Your task to perform on an android device: How old is the earth? Image 0: 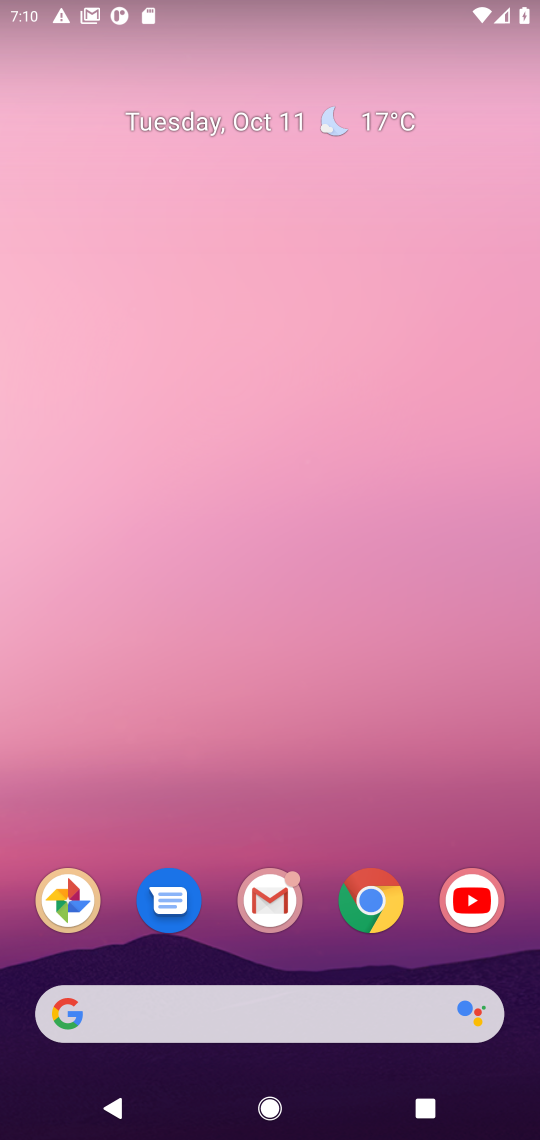
Step 0: click (371, 905)
Your task to perform on an android device: How old is the earth? Image 1: 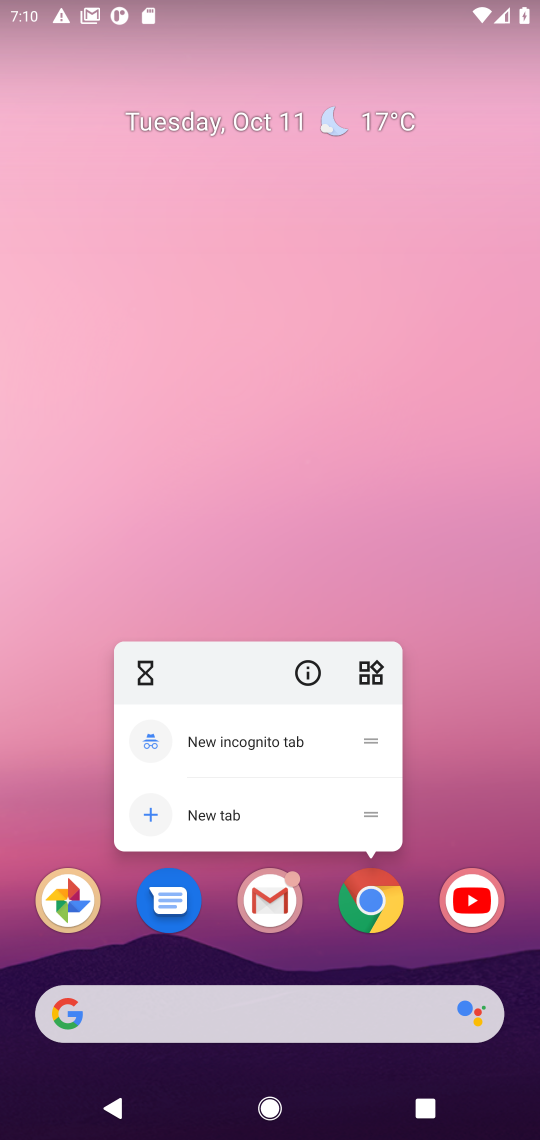
Step 1: click (365, 913)
Your task to perform on an android device: How old is the earth? Image 2: 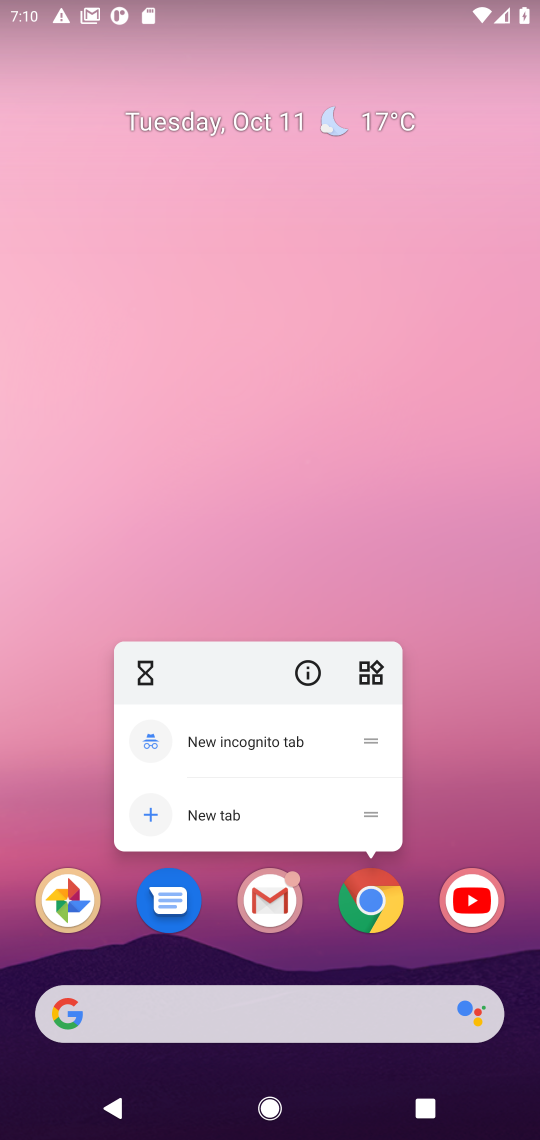
Step 2: click (364, 908)
Your task to perform on an android device: How old is the earth? Image 3: 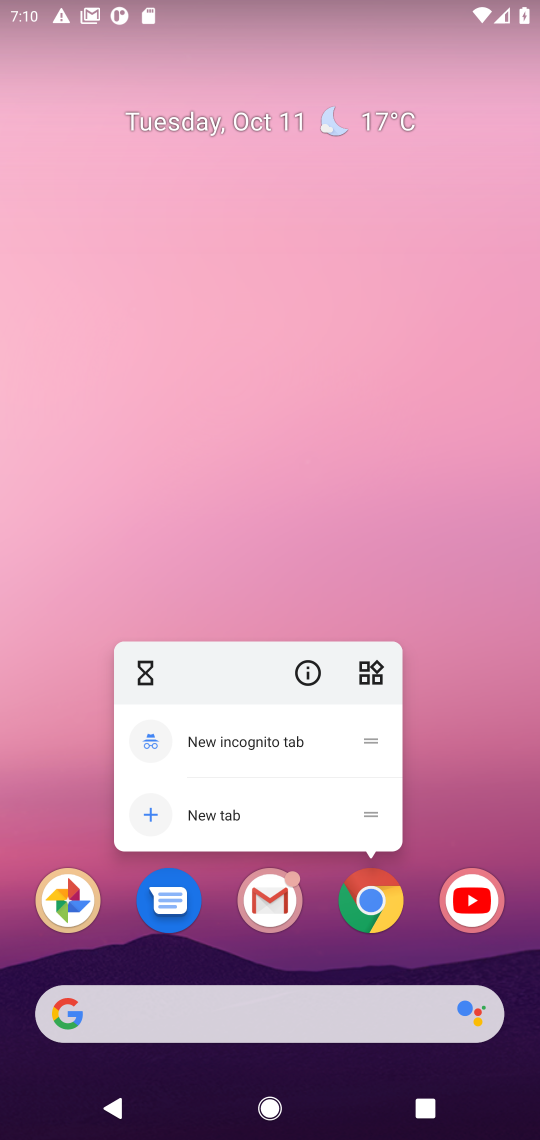
Step 3: click (365, 910)
Your task to perform on an android device: How old is the earth? Image 4: 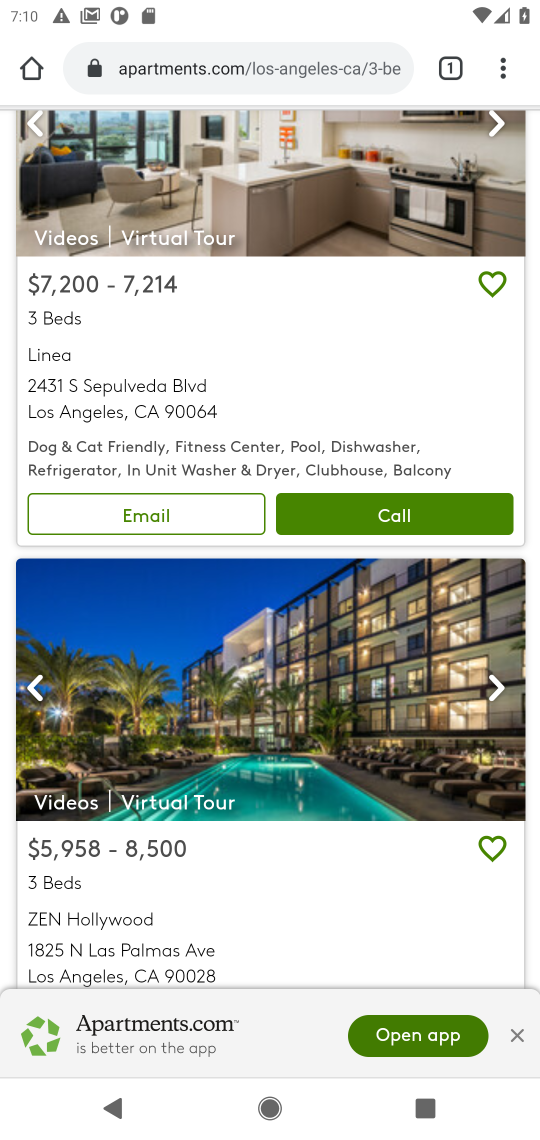
Step 4: click (295, 62)
Your task to perform on an android device: How old is the earth? Image 5: 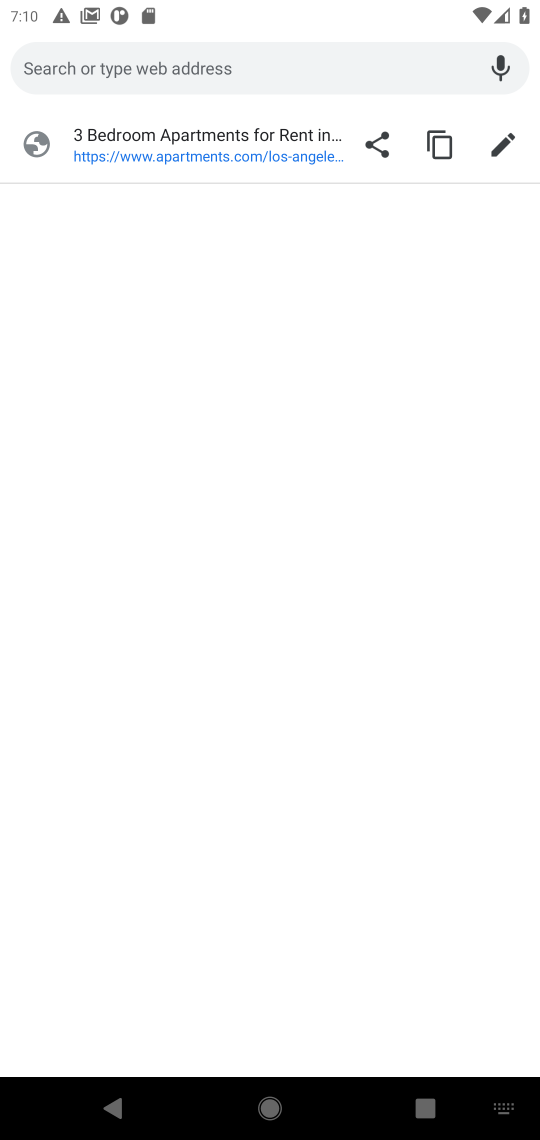
Step 5: type "How old is the earth"
Your task to perform on an android device: How old is the earth? Image 6: 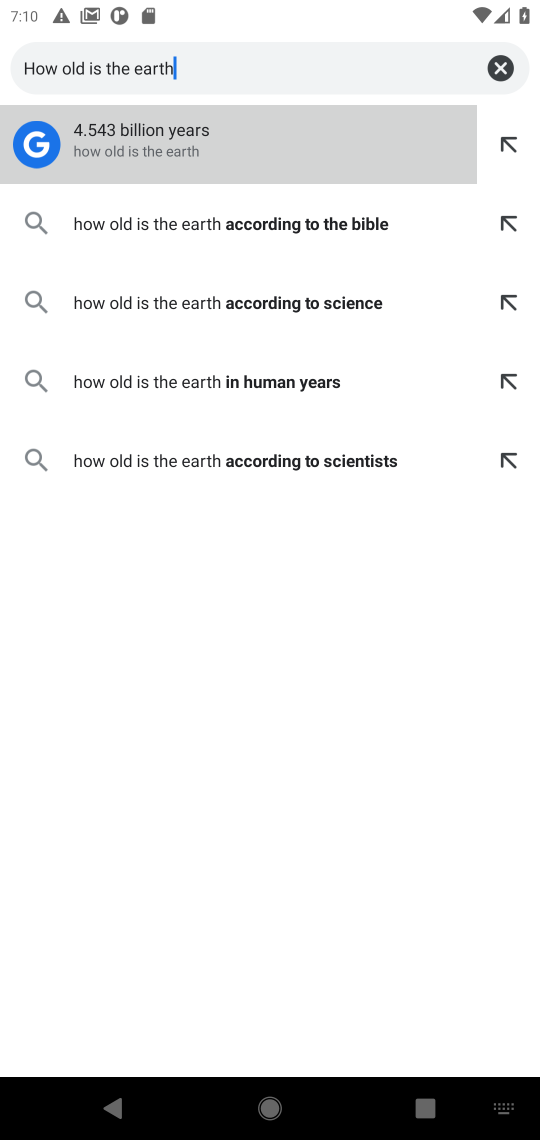
Step 6: press enter
Your task to perform on an android device: How old is the earth? Image 7: 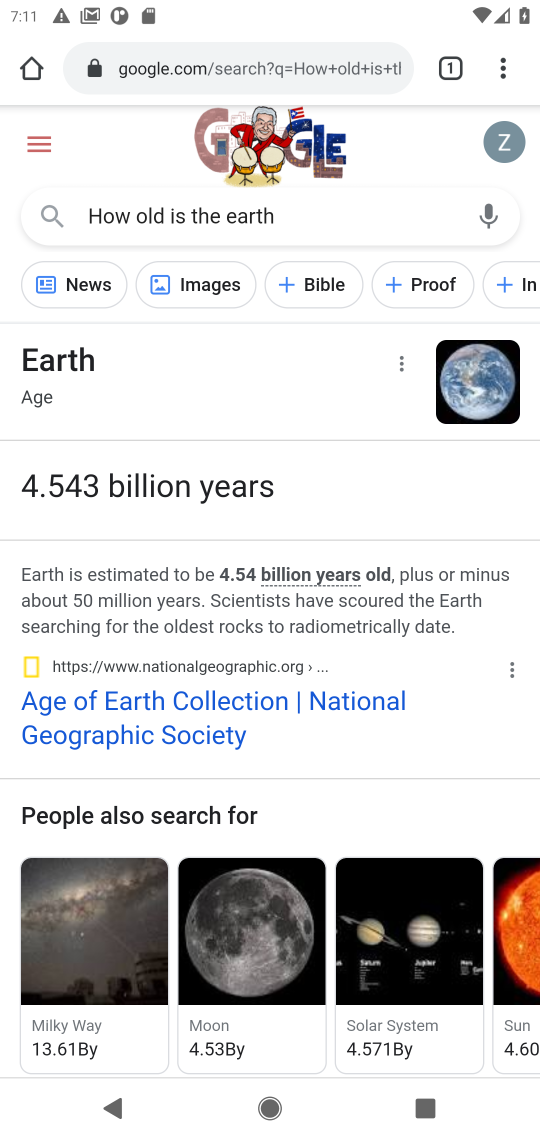
Step 7: click (223, 699)
Your task to perform on an android device: How old is the earth? Image 8: 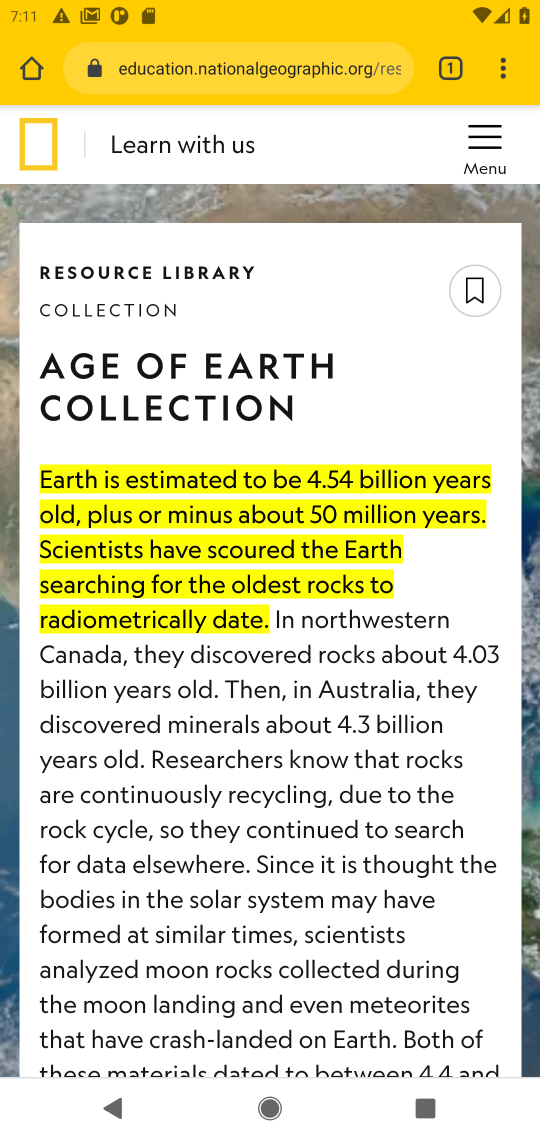
Step 8: drag from (313, 991) to (489, 149)
Your task to perform on an android device: How old is the earth? Image 9: 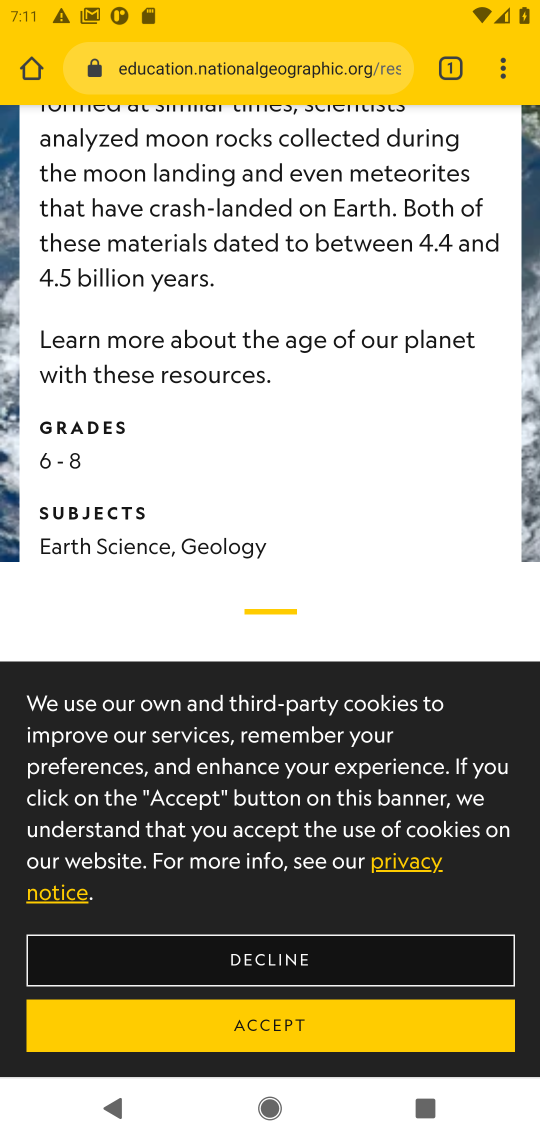
Step 9: click (303, 1035)
Your task to perform on an android device: How old is the earth? Image 10: 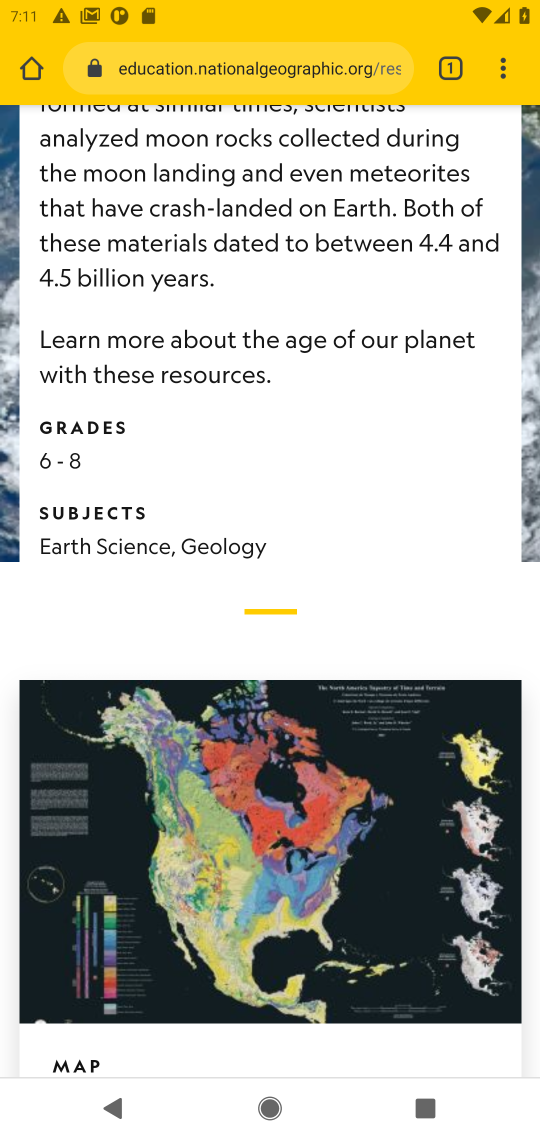
Step 10: task complete